Your task to perform on an android device: What's the weather going to be this weekend? Image 0: 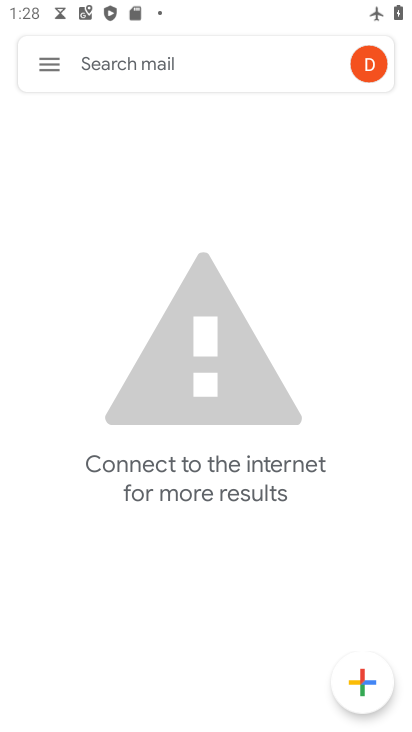
Step 0: press home button
Your task to perform on an android device: What's the weather going to be this weekend? Image 1: 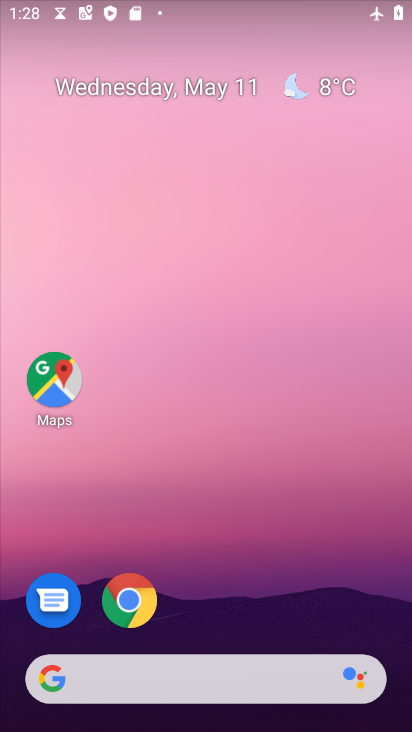
Step 1: click (307, 81)
Your task to perform on an android device: What's the weather going to be this weekend? Image 2: 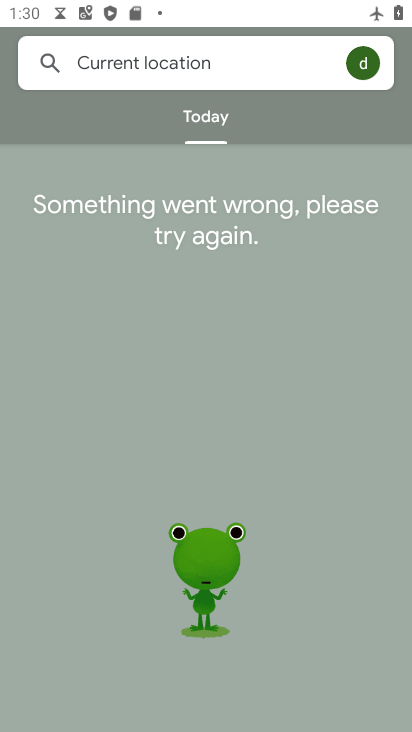
Step 2: task complete